Your task to perform on an android device: What's the weather today? Image 0: 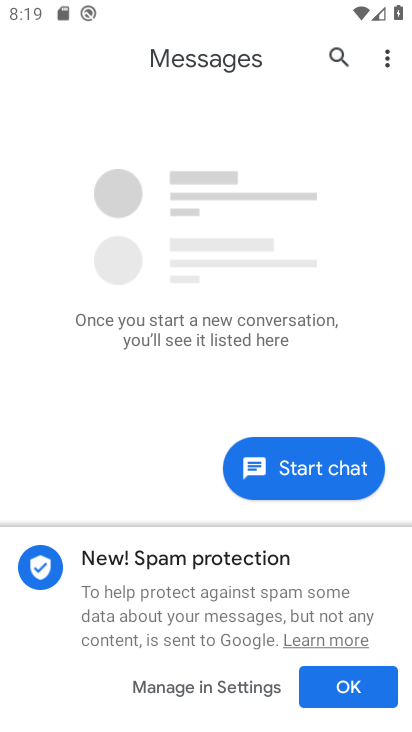
Step 0: press back button
Your task to perform on an android device: What's the weather today? Image 1: 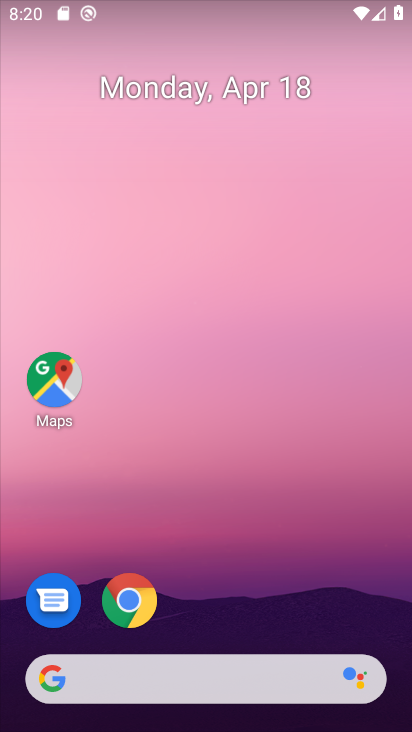
Step 1: drag from (335, 483) to (217, 3)
Your task to perform on an android device: What's the weather today? Image 2: 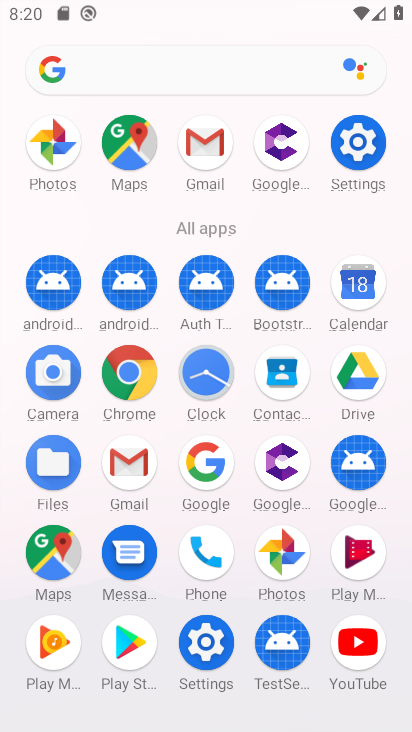
Step 2: click (216, 72)
Your task to perform on an android device: What's the weather today? Image 3: 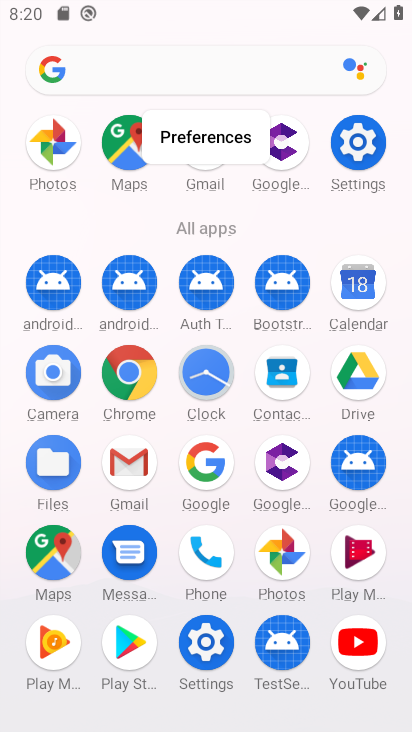
Step 3: click (177, 64)
Your task to perform on an android device: What's the weather today? Image 4: 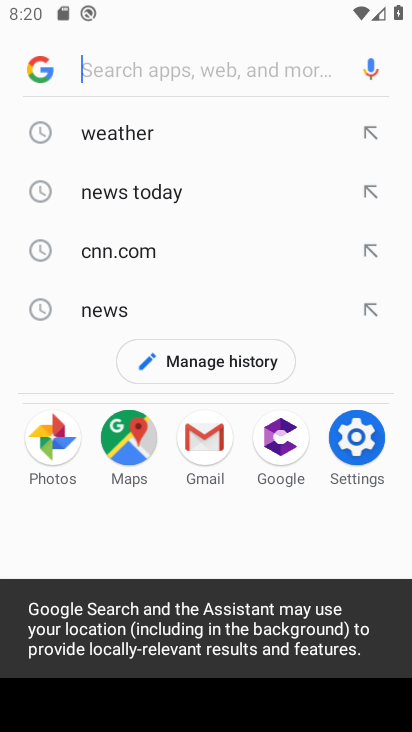
Step 4: click (166, 124)
Your task to perform on an android device: What's the weather today? Image 5: 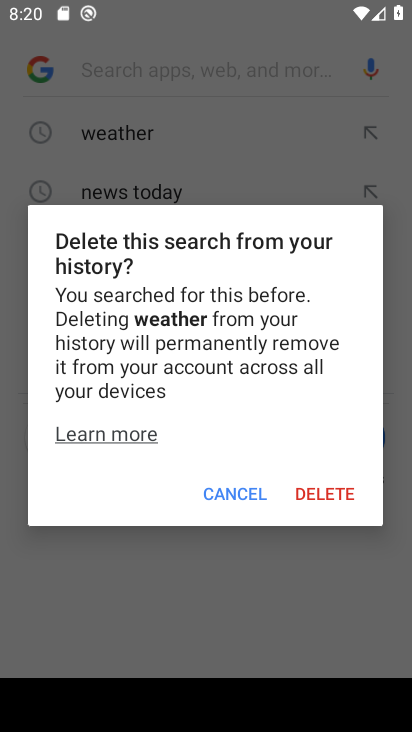
Step 5: click (237, 479)
Your task to perform on an android device: What's the weather today? Image 6: 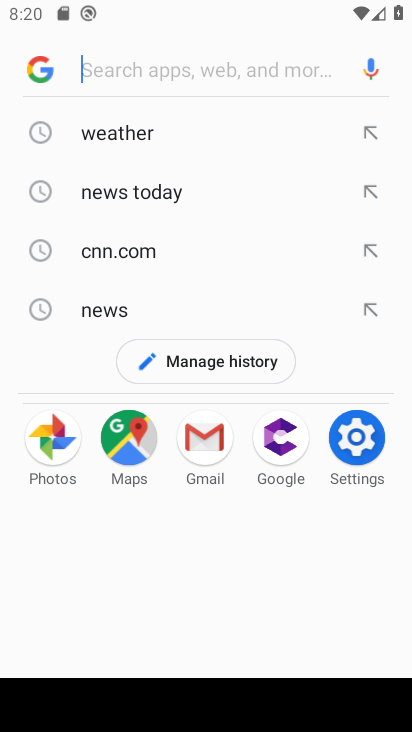
Step 6: click (89, 132)
Your task to perform on an android device: What's the weather today? Image 7: 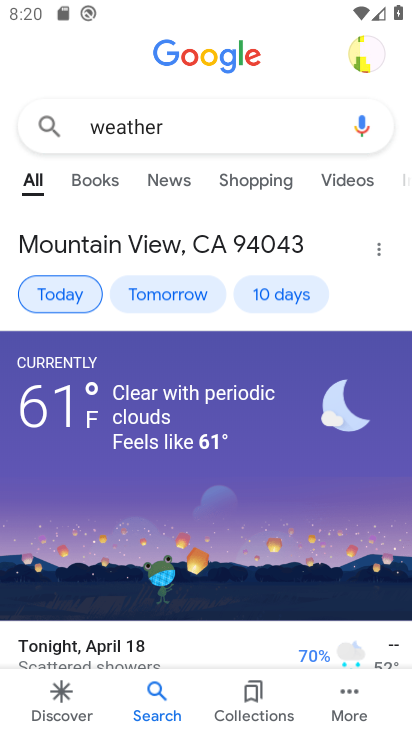
Step 7: task complete